Your task to perform on an android device: change the clock display to analog Image 0: 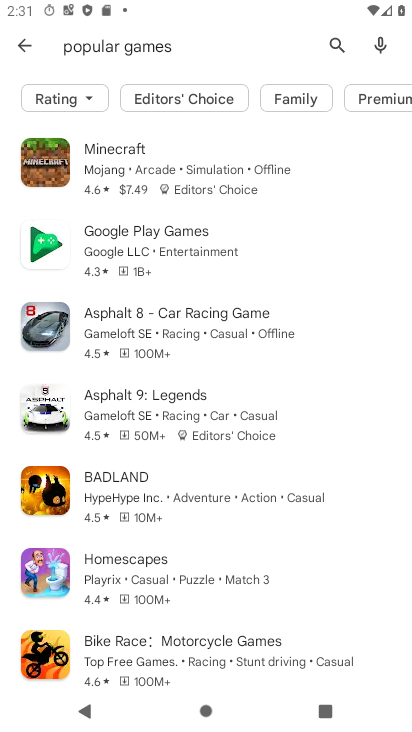
Step 0: press home button
Your task to perform on an android device: change the clock display to analog Image 1: 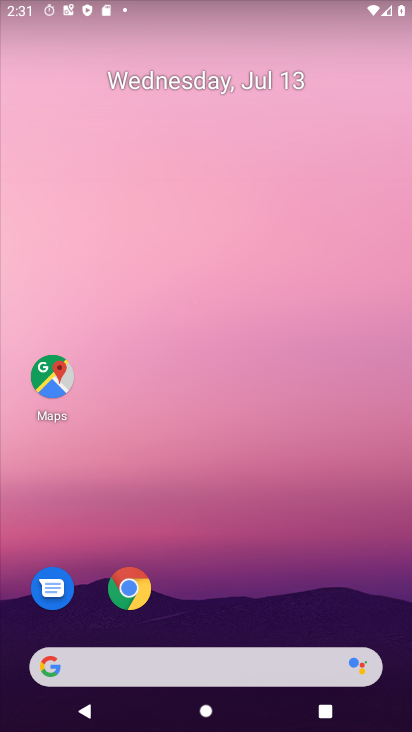
Step 1: drag from (204, 663) to (266, 251)
Your task to perform on an android device: change the clock display to analog Image 2: 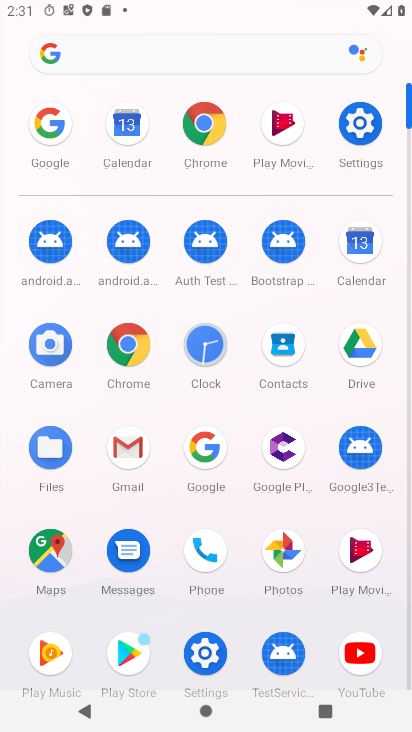
Step 2: click (216, 336)
Your task to perform on an android device: change the clock display to analog Image 3: 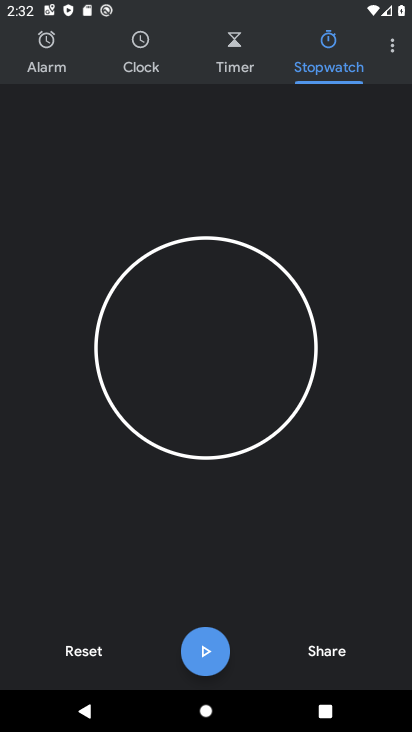
Step 3: click (385, 42)
Your task to perform on an android device: change the clock display to analog Image 4: 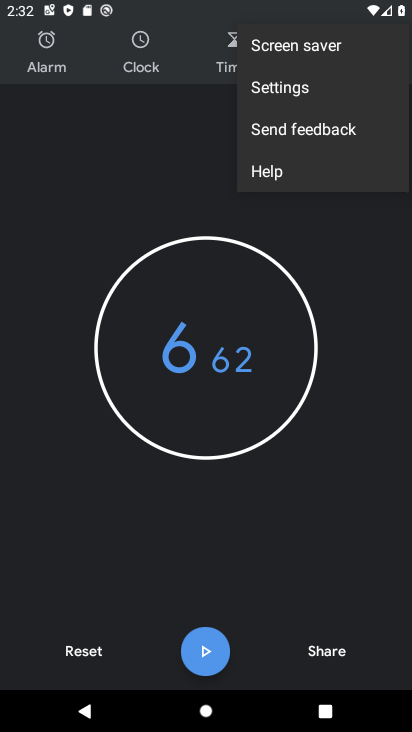
Step 4: click (270, 89)
Your task to perform on an android device: change the clock display to analog Image 5: 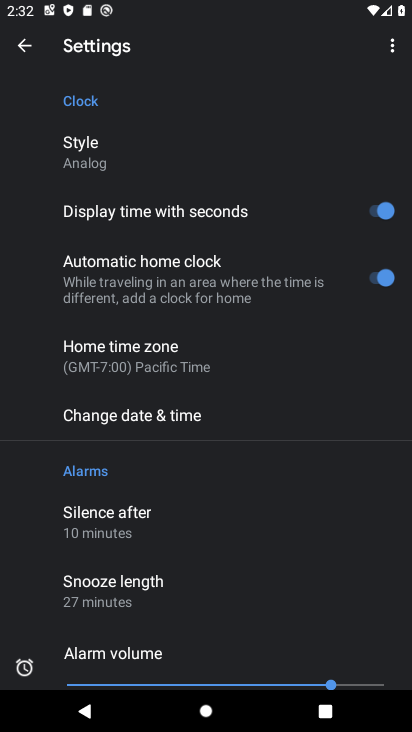
Step 5: task complete